Your task to perform on an android device: open app "Google Play Music" (install if not already installed) Image 0: 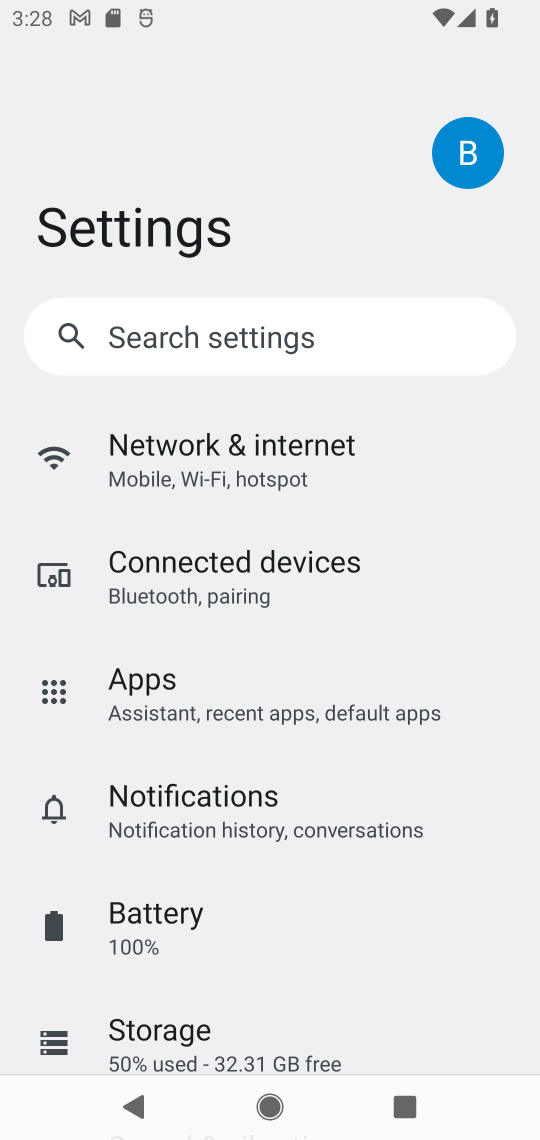
Step 0: press home button
Your task to perform on an android device: open app "Google Play Music" (install if not already installed) Image 1: 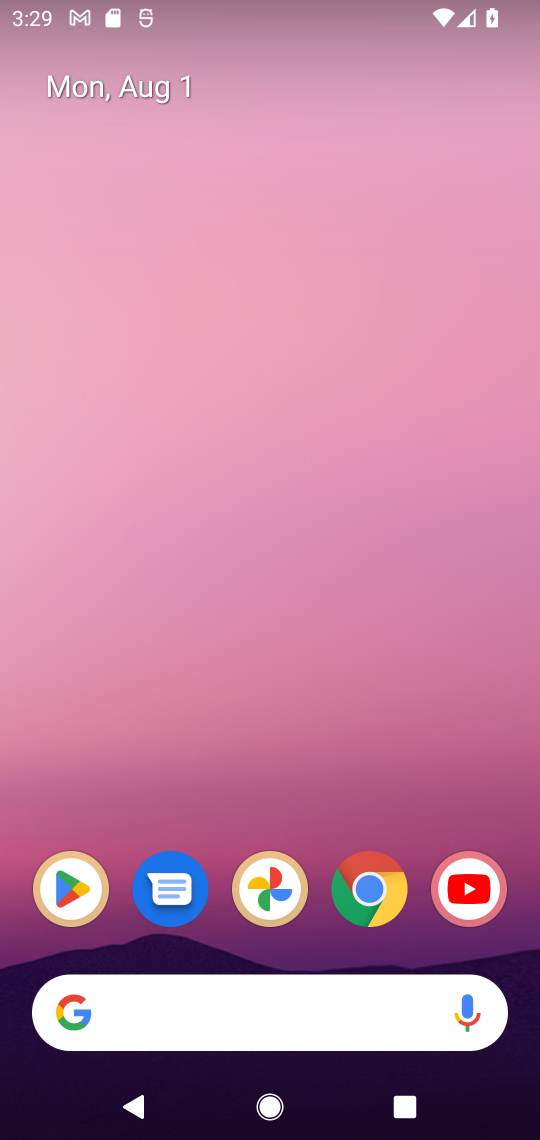
Step 1: click (55, 895)
Your task to perform on an android device: open app "Google Play Music" (install if not already installed) Image 2: 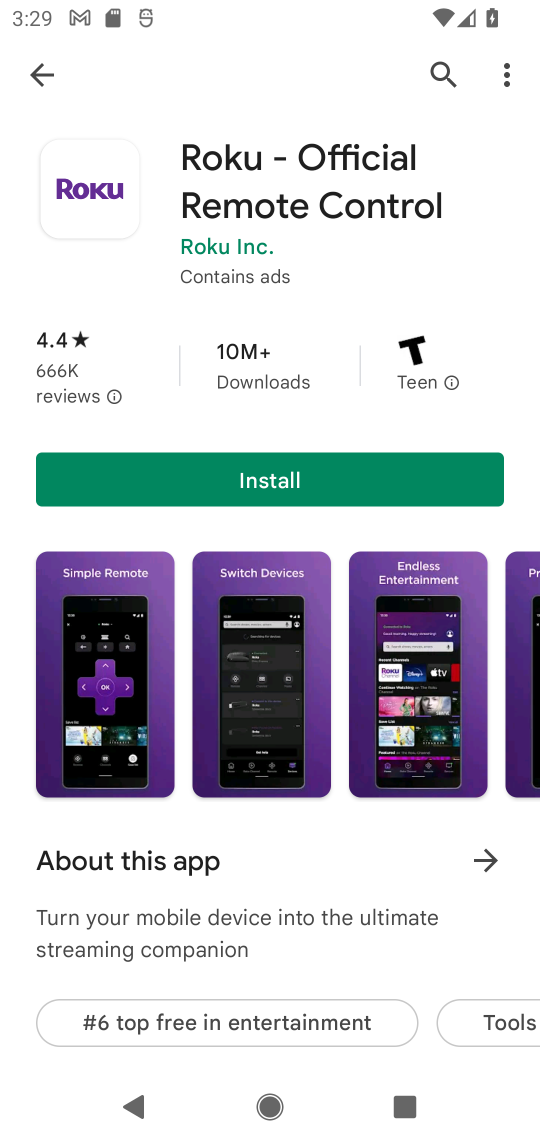
Step 2: click (437, 61)
Your task to perform on an android device: open app "Google Play Music" (install if not already installed) Image 3: 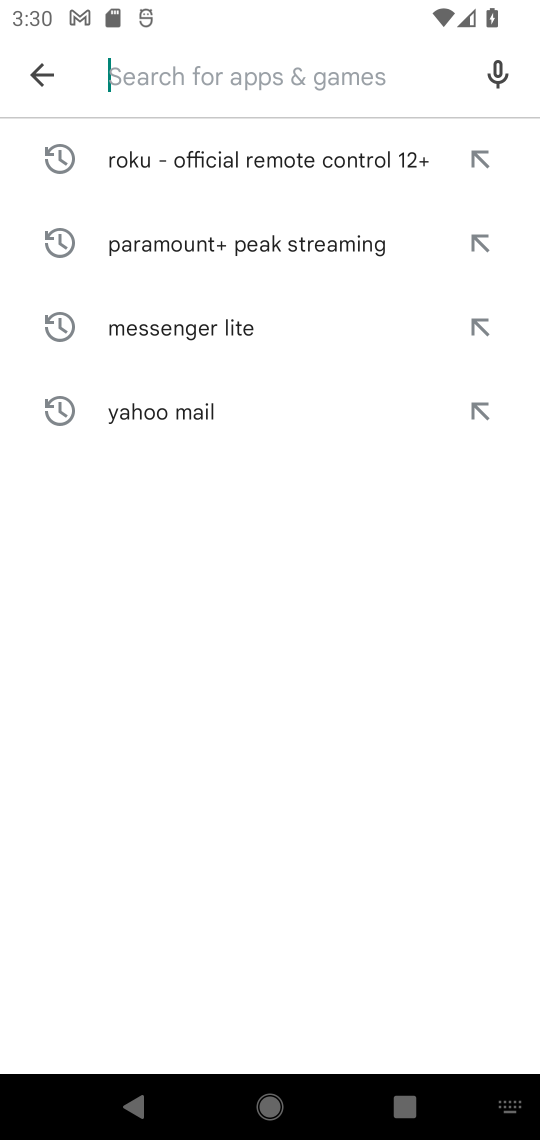
Step 3: type "Google Play Music"
Your task to perform on an android device: open app "Google Play Music" (install if not already installed) Image 4: 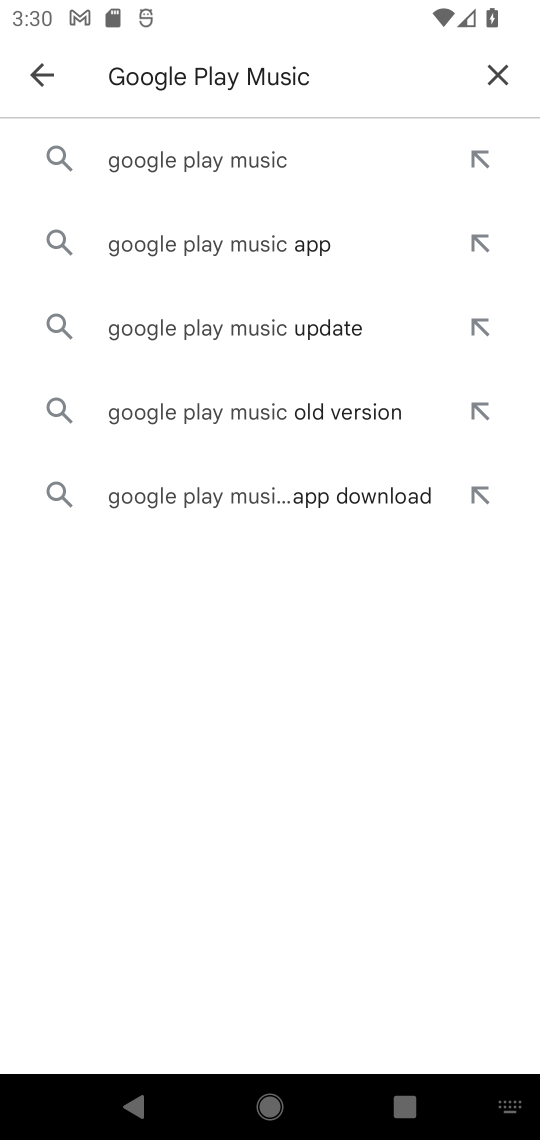
Step 4: click (175, 169)
Your task to perform on an android device: open app "Google Play Music" (install if not already installed) Image 5: 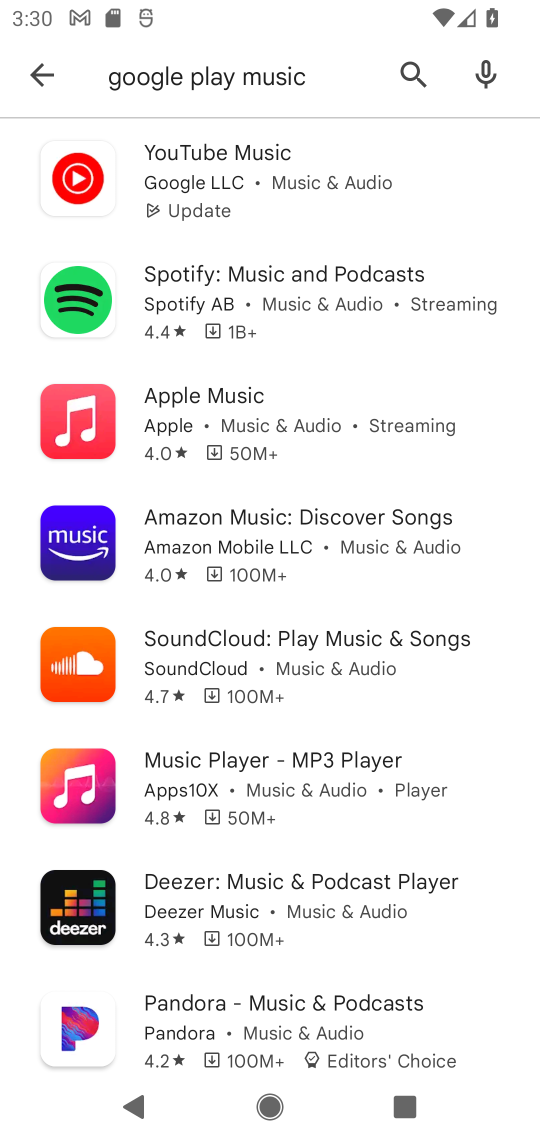
Step 5: click (326, 209)
Your task to perform on an android device: open app "Google Play Music" (install if not already installed) Image 6: 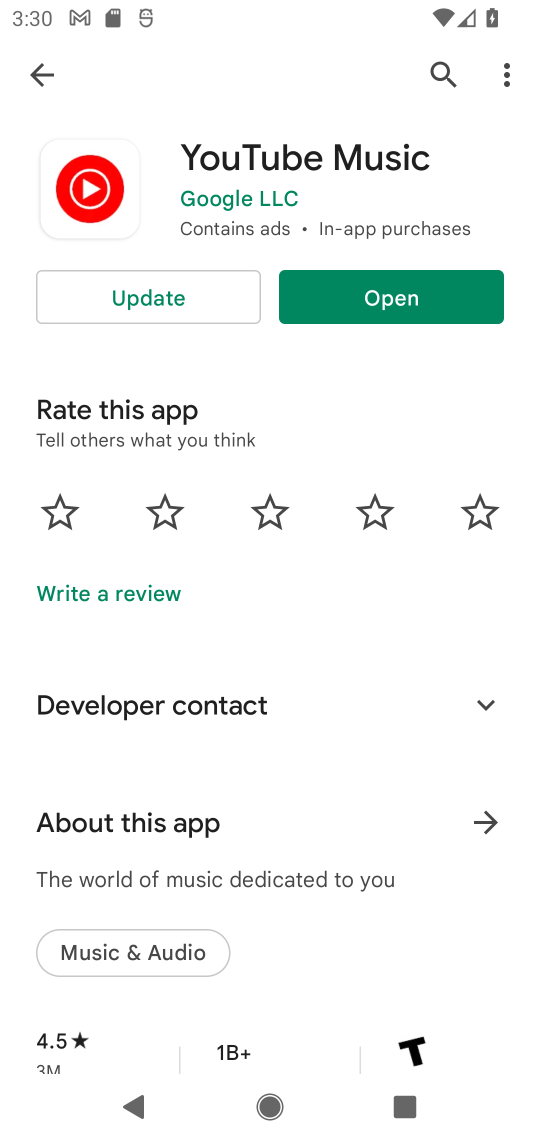
Step 6: click (369, 304)
Your task to perform on an android device: open app "Google Play Music" (install if not already installed) Image 7: 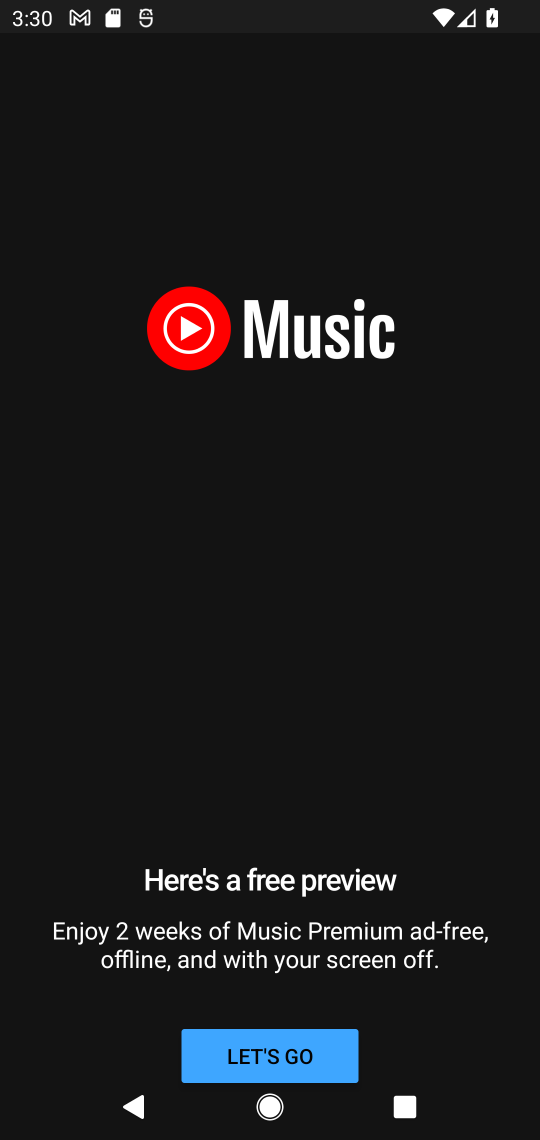
Step 7: task complete